Your task to perform on an android device: set the timer Image 0: 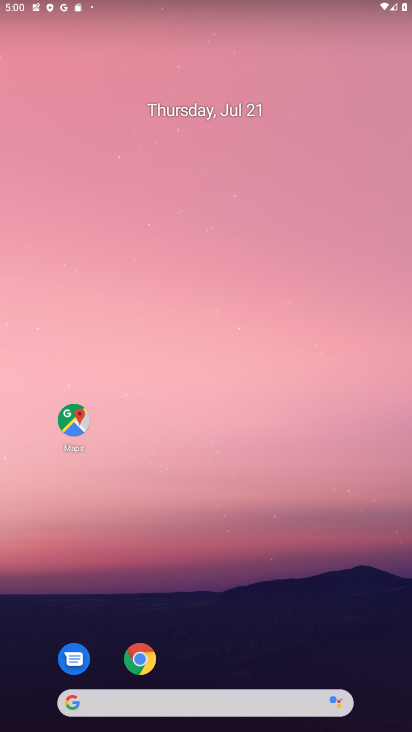
Step 0: drag from (258, 615) to (236, 0)
Your task to perform on an android device: set the timer Image 1: 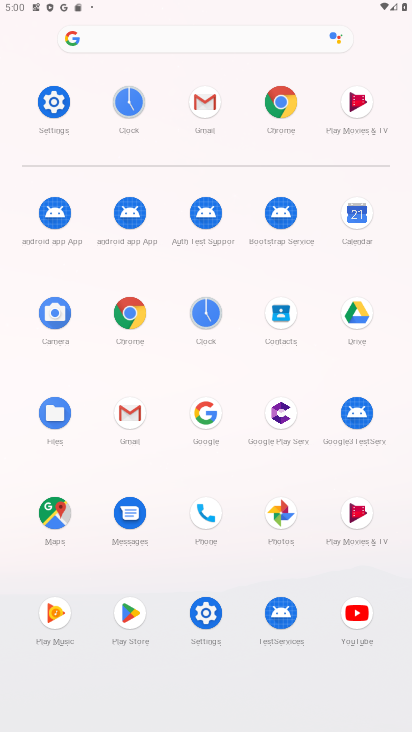
Step 1: click (129, 109)
Your task to perform on an android device: set the timer Image 2: 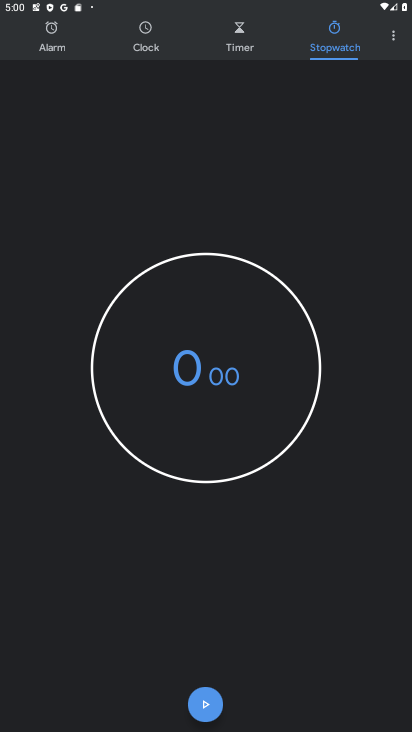
Step 2: click (249, 48)
Your task to perform on an android device: set the timer Image 3: 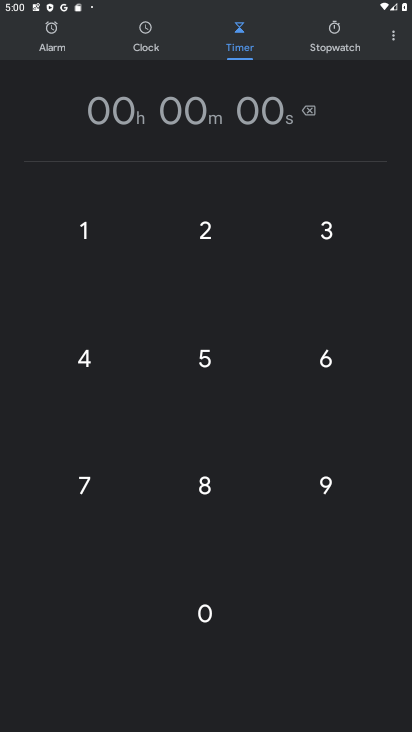
Step 3: click (83, 241)
Your task to perform on an android device: set the timer Image 4: 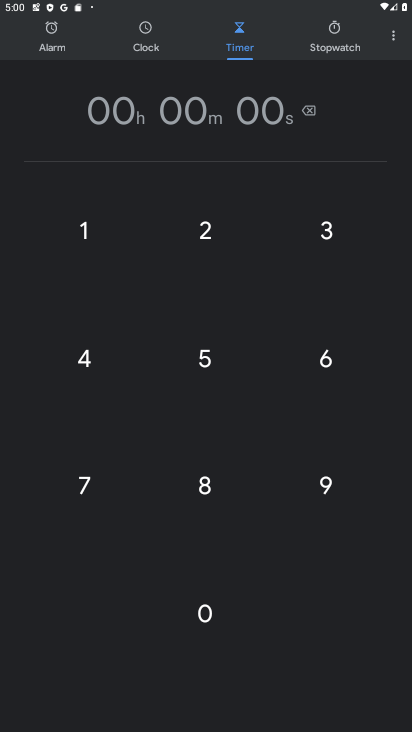
Step 4: click (83, 241)
Your task to perform on an android device: set the timer Image 5: 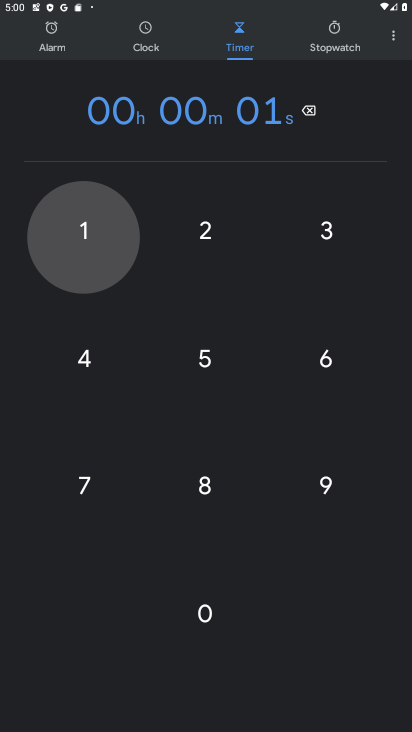
Step 5: click (83, 241)
Your task to perform on an android device: set the timer Image 6: 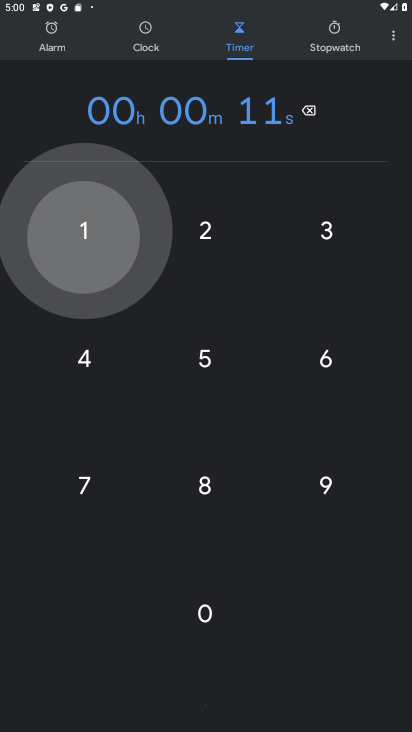
Step 6: click (83, 241)
Your task to perform on an android device: set the timer Image 7: 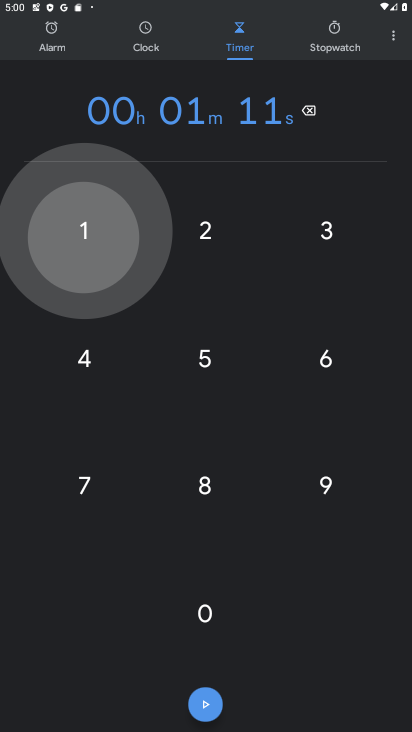
Step 7: click (83, 241)
Your task to perform on an android device: set the timer Image 8: 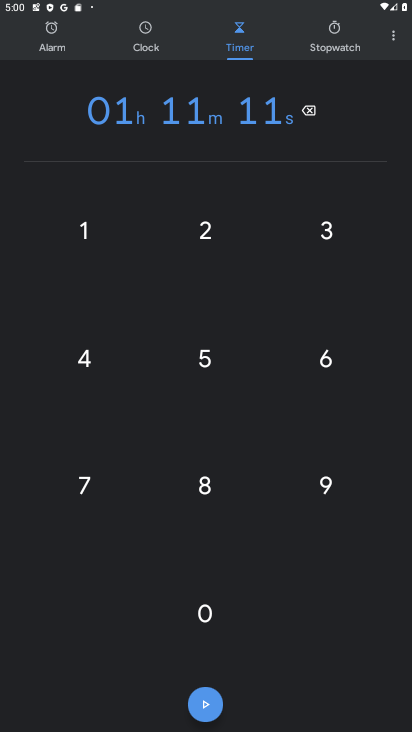
Step 8: click (83, 241)
Your task to perform on an android device: set the timer Image 9: 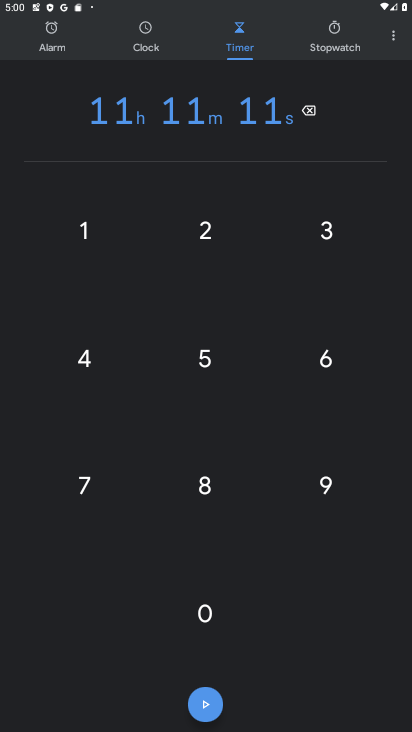
Step 9: task complete